Your task to perform on an android device: clear history in the chrome app Image 0: 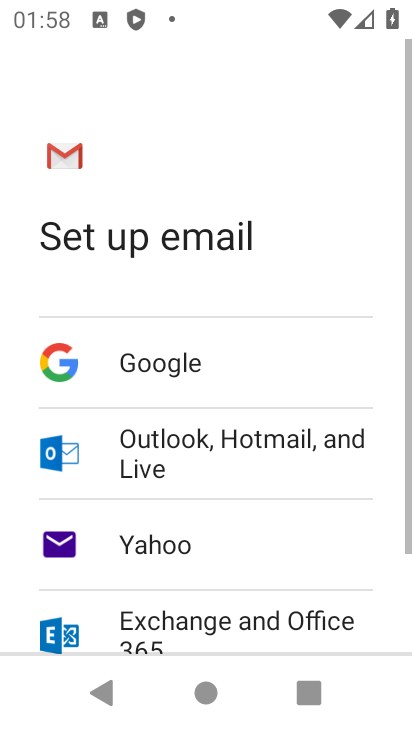
Step 0: press home button
Your task to perform on an android device: clear history in the chrome app Image 1: 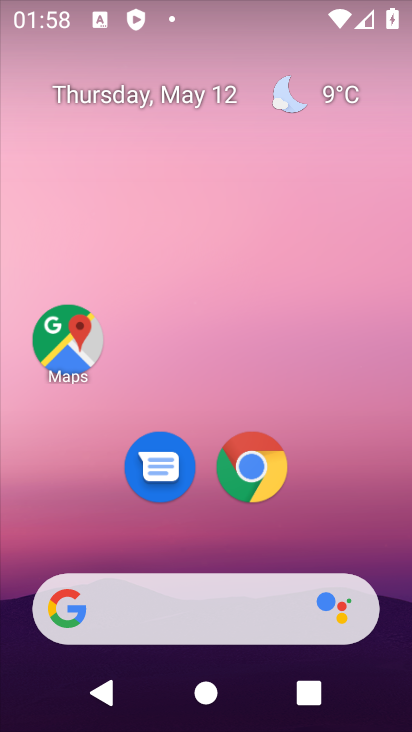
Step 1: click (259, 453)
Your task to perform on an android device: clear history in the chrome app Image 2: 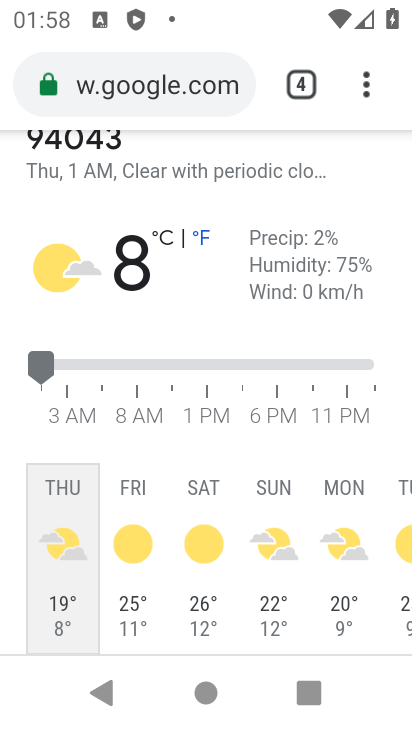
Step 2: click (351, 77)
Your task to perform on an android device: clear history in the chrome app Image 3: 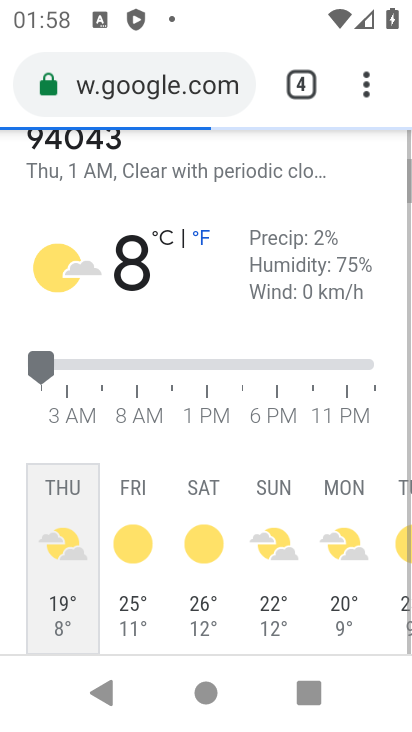
Step 3: click (348, 78)
Your task to perform on an android device: clear history in the chrome app Image 4: 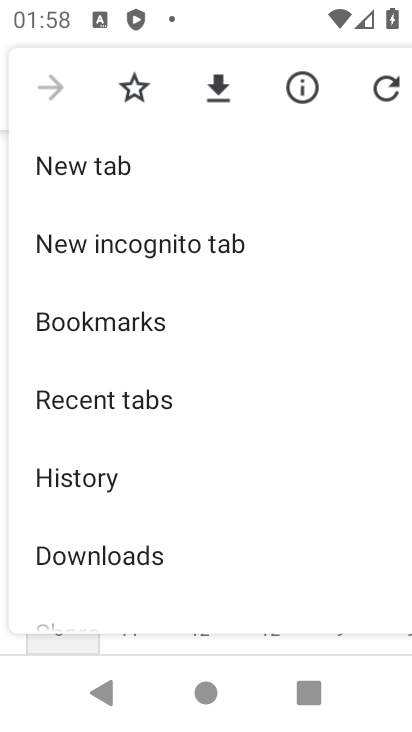
Step 4: click (90, 479)
Your task to perform on an android device: clear history in the chrome app Image 5: 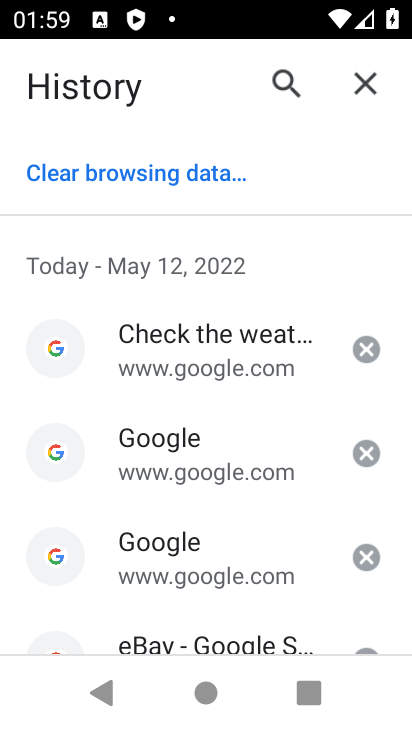
Step 5: click (150, 179)
Your task to perform on an android device: clear history in the chrome app Image 6: 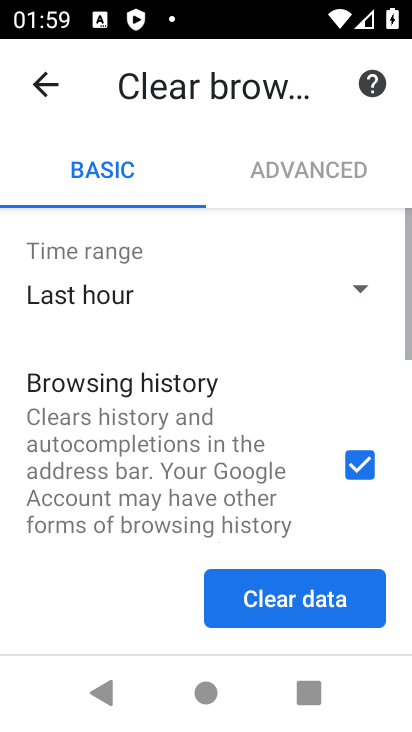
Step 6: click (332, 608)
Your task to perform on an android device: clear history in the chrome app Image 7: 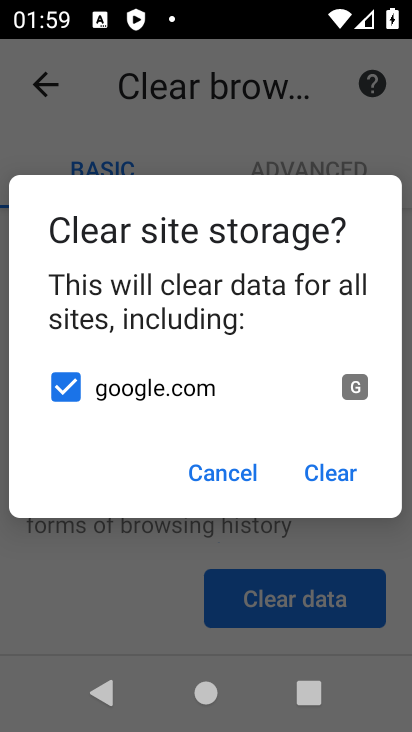
Step 7: click (313, 477)
Your task to perform on an android device: clear history in the chrome app Image 8: 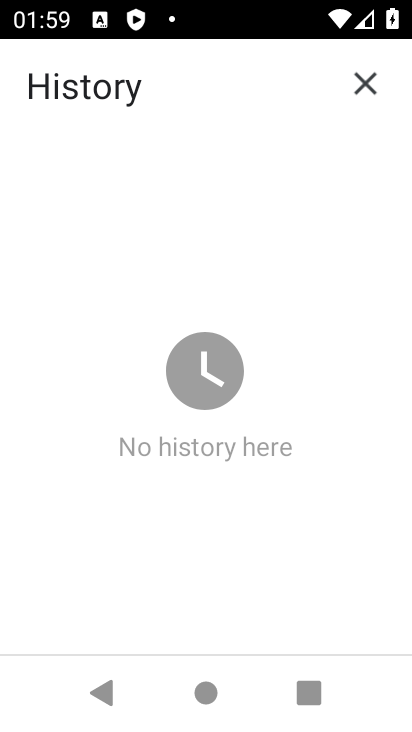
Step 8: task complete